Your task to perform on an android device: turn notification dots on Image 0: 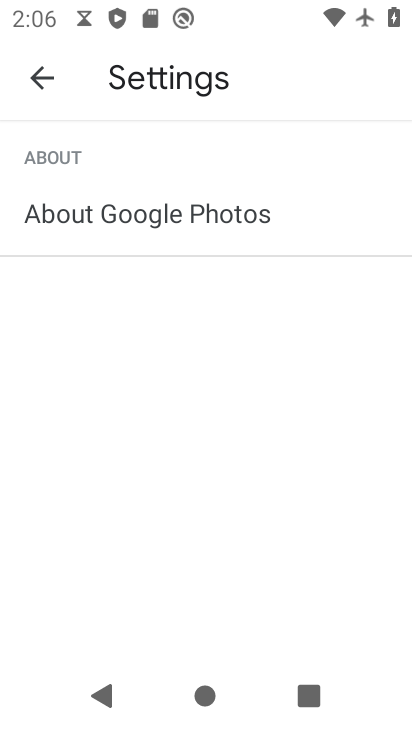
Step 0: press home button
Your task to perform on an android device: turn notification dots on Image 1: 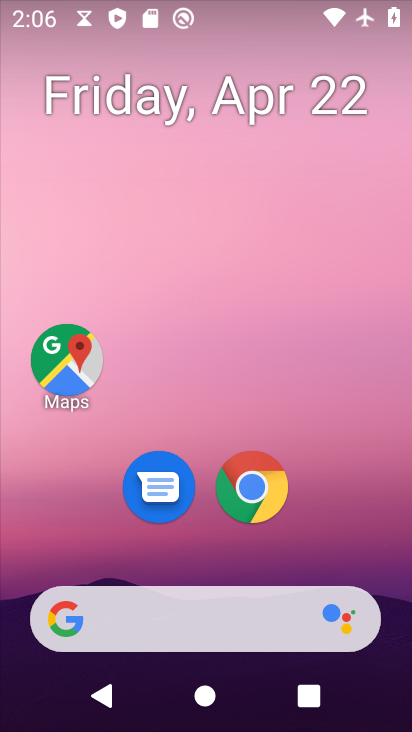
Step 1: drag from (176, 588) to (283, 41)
Your task to perform on an android device: turn notification dots on Image 2: 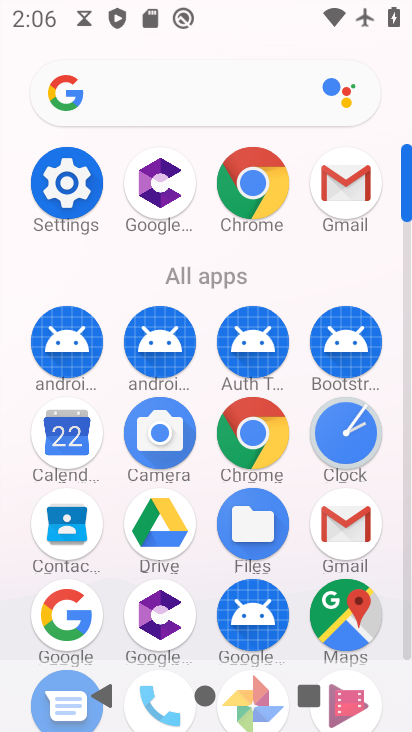
Step 2: click (75, 193)
Your task to perform on an android device: turn notification dots on Image 3: 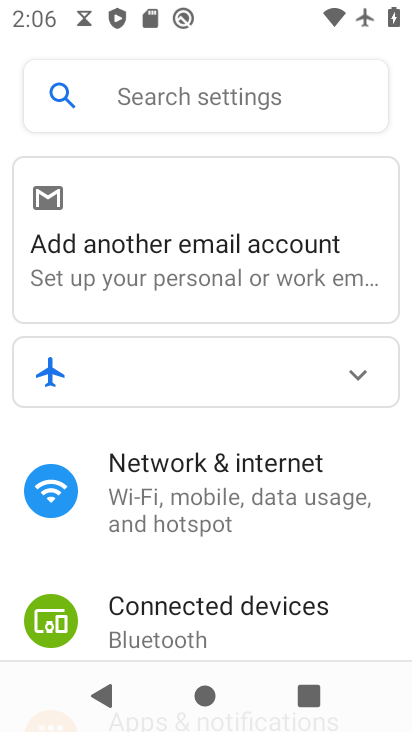
Step 3: drag from (194, 602) to (329, 128)
Your task to perform on an android device: turn notification dots on Image 4: 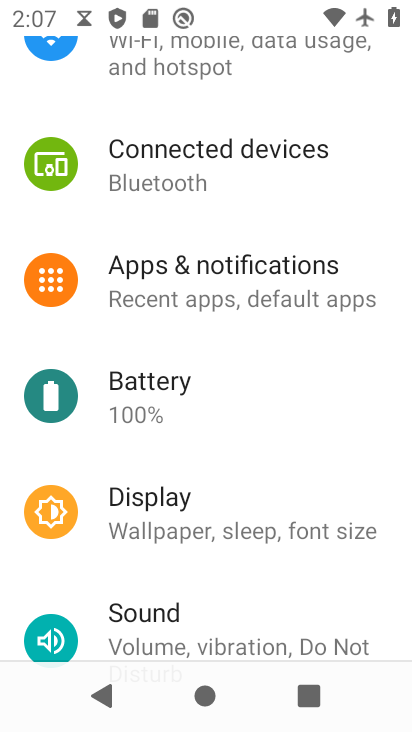
Step 4: drag from (181, 623) to (300, 389)
Your task to perform on an android device: turn notification dots on Image 5: 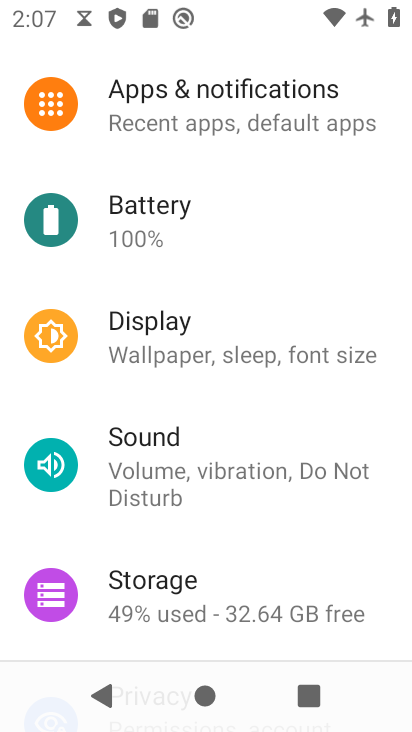
Step 5: drag from (278, 201) to (264, 473)
Your task to perform on an android device: turn notification dots on Image 6: 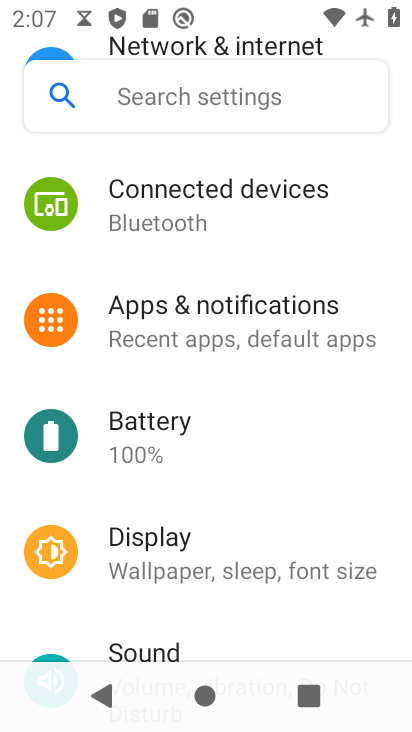
Step 6: click (250, 302)
Your task to perform on an android device: turn notification dots on Image 7: 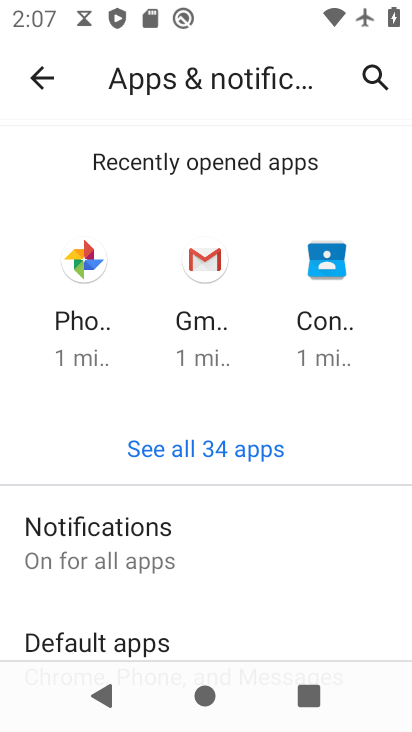
Step 7: click (117, 555)
Your task to perform on an android device: turn notification dots on Image 8: 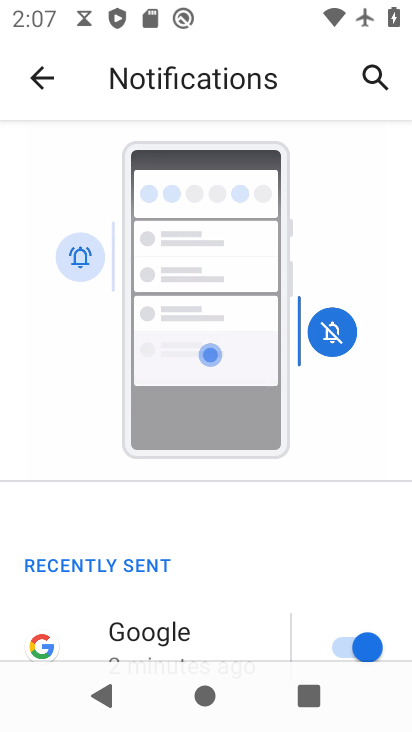
Step 8: drag from (190, 607) to (312, 127)
Your task to perform on an android device: turn notification dots on Image 9: 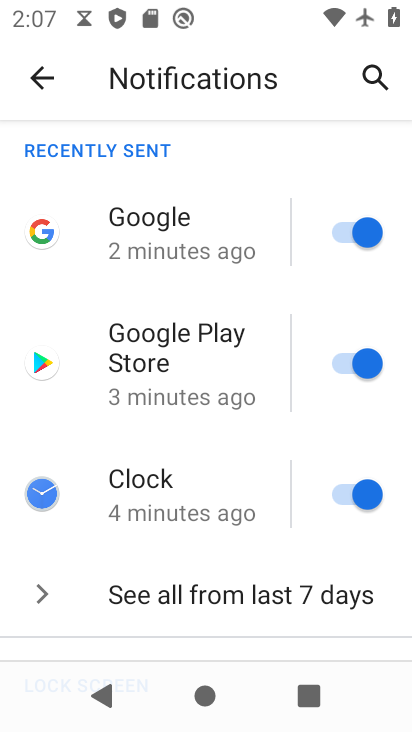
Step 9: drag from (168, 573) to (282, 82)
Your task to perform on an android device: turn notification dots on Image 10: 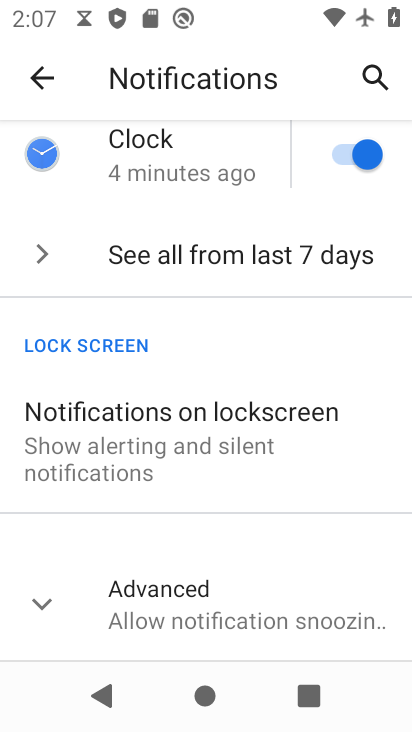
Step 10: click (171, 605)
Your task to perform on an android device: turn notification dots on Image 11: 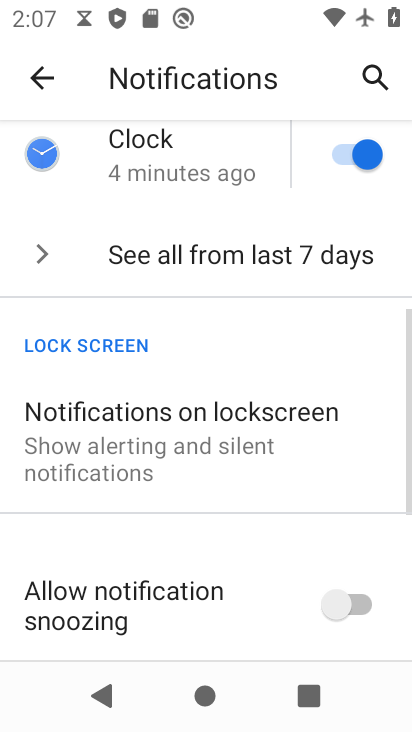
Step 11: task complete